Your task to perform on an android device: Go to eBay Image 0: 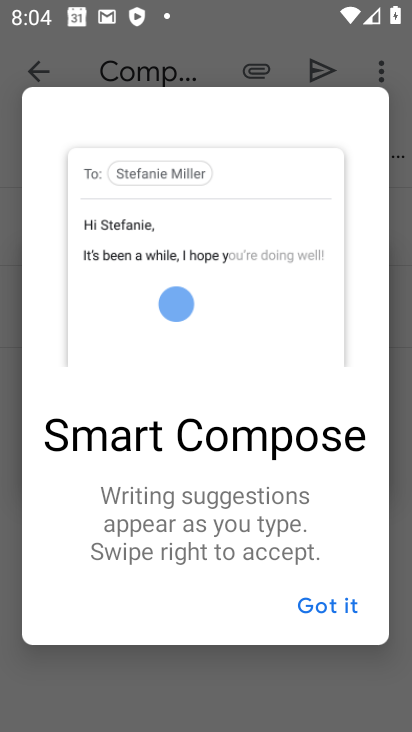
Step 0: press home button
Your task to perform on an android device: Go to eBay Image 1: 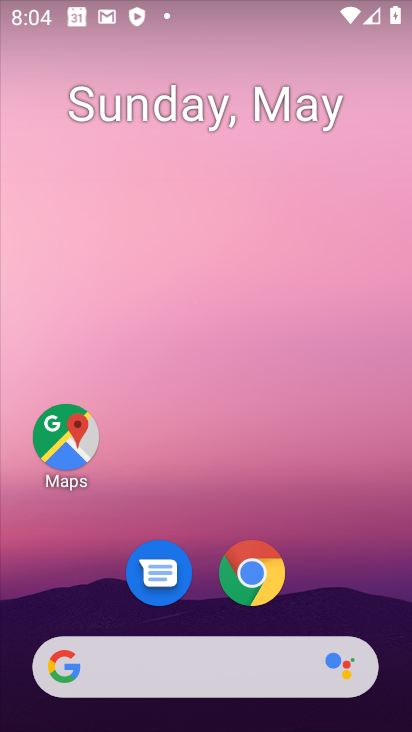
Step 1: click (259, 705)
Your task to perform on an android device: Go to eBay Image 2: 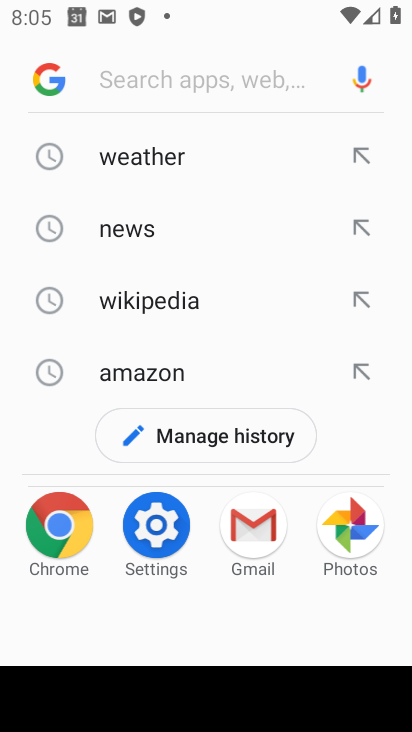
Step 2: type "ebay"
Your task to perform on an android device: Go to eBay Image 3: 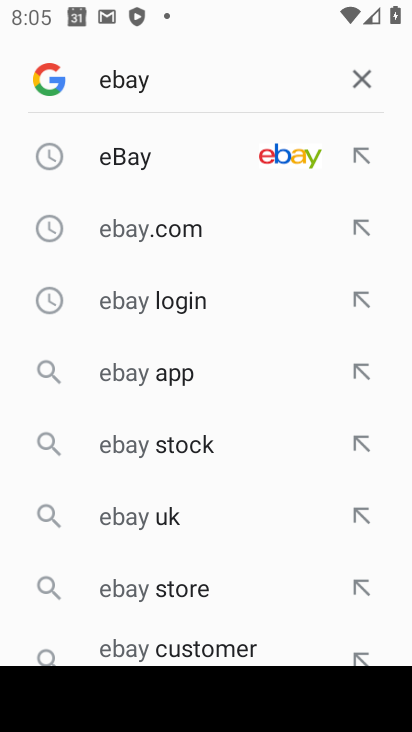
Step 3: click (126, 159)
Your task to perform on an android device: Go to eBay Image 4: 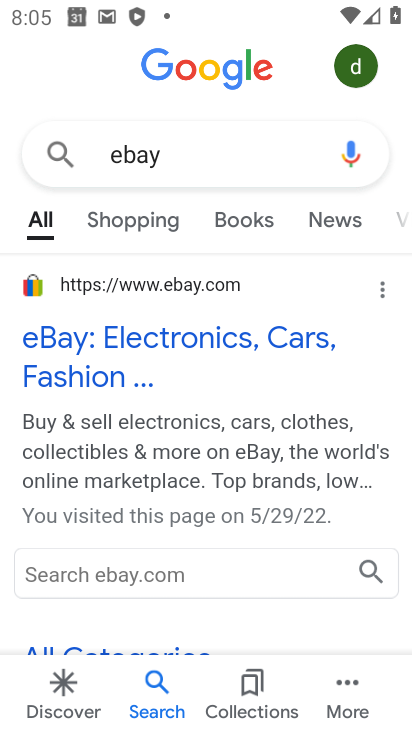
Step 4: click (76, 339)
Your task to perform on an android device: Go to eBay Image 5: 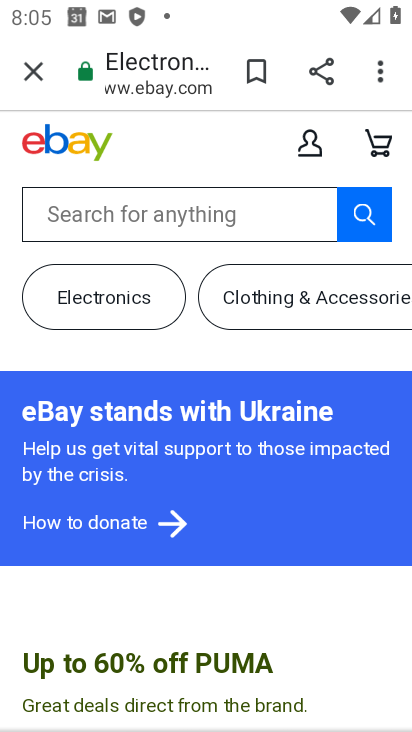
Step 5: task complete